Your task to perform on an android device: Check the news Image 0: 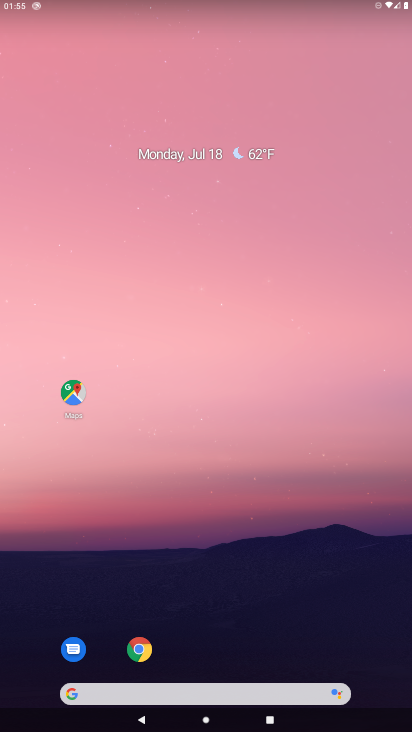
Step 0: click (153, 696)
Your task to perform on an android device: Check the news Image 1: 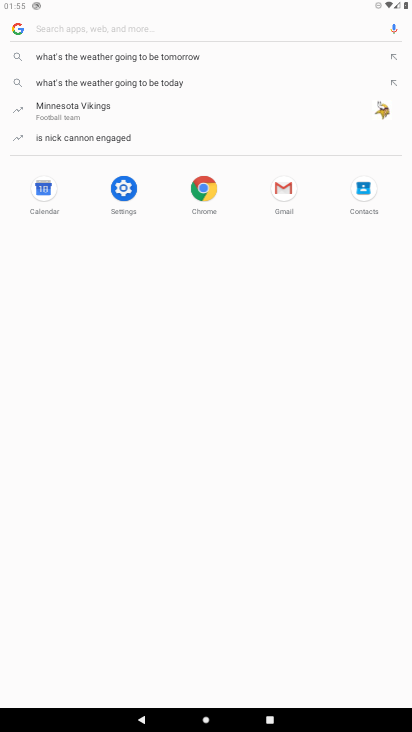
Step 1: type " news"
Your task to perform on an android device: Check the news Image 2: 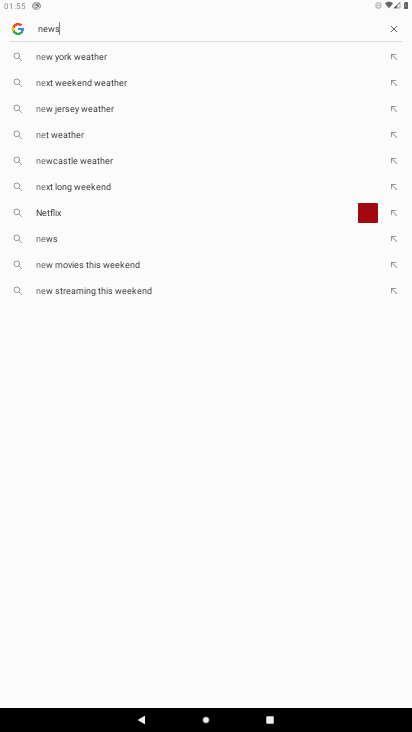
Step 2: type ""
Your task to perform on an android device: Check the news Image 3: 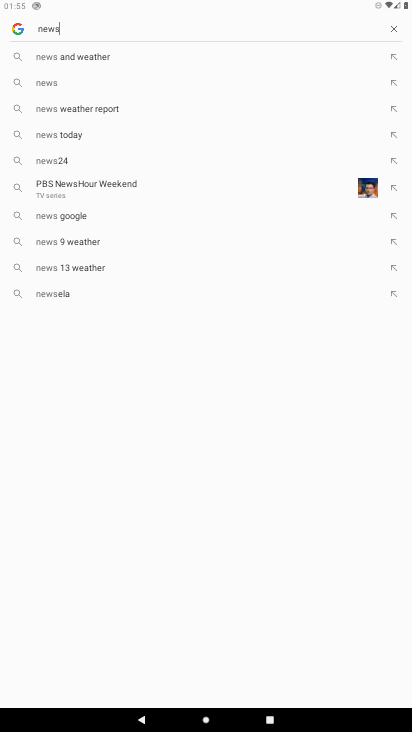
Step 3: type ""
Your task to perform on an android device: Check the news Image 4: 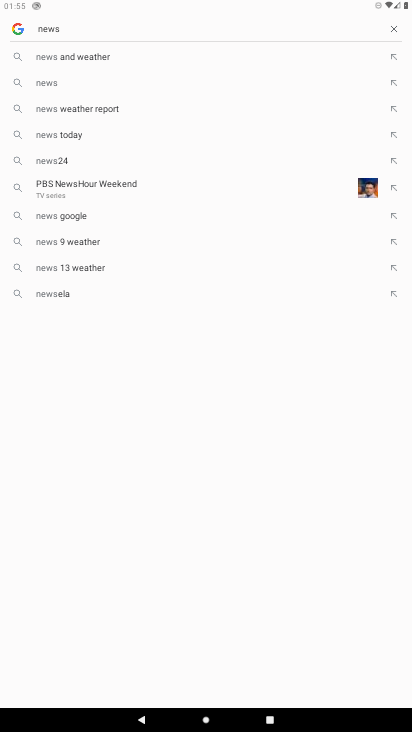
Step 4: click (57, 78)
Your task to perform on an android device: Check the news Image 5: 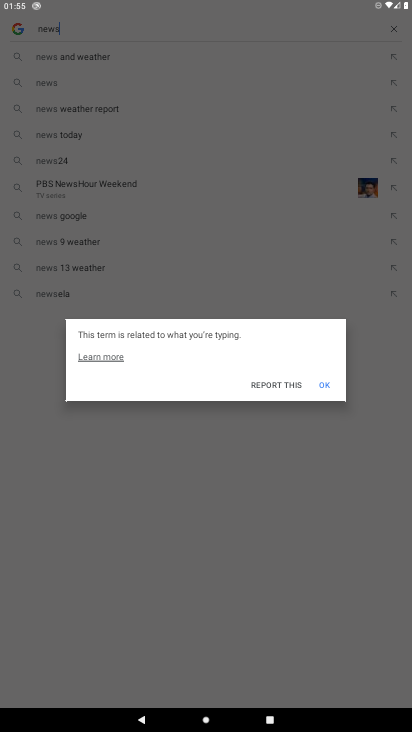
Step 5: click (324, 383)
Your task to perform on an android device: Check the news Image 6: 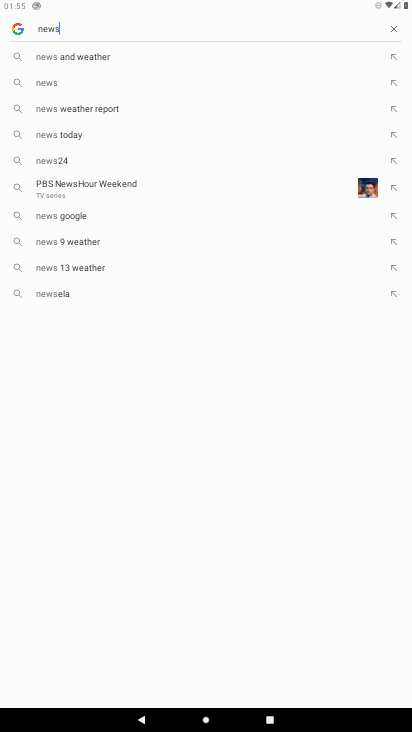
Step 6: task complete